Your task to perform on an android device: manage bookmarks in the chrome app Image 0: 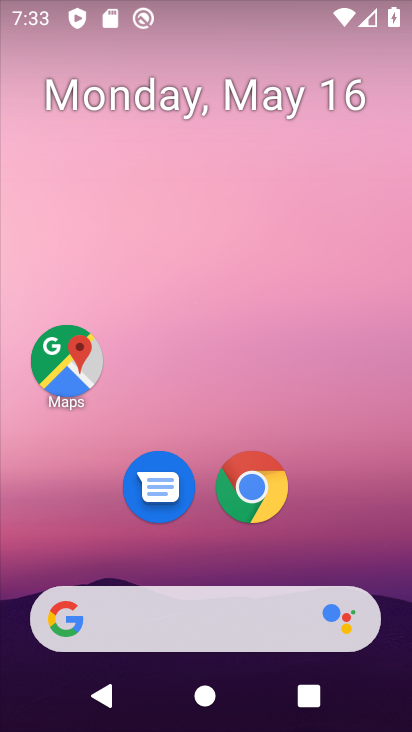
Step 0: click (269, 490)
Your task to perform on an android device: manage bookmarks in the chrome app Image 1: 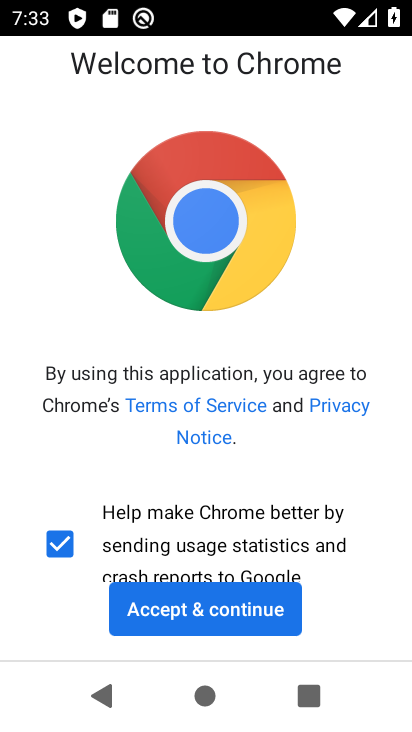
Step 1: click (213, 605)
Your task to perform on an android device: manage bookmarks in the chrome app Image 2: 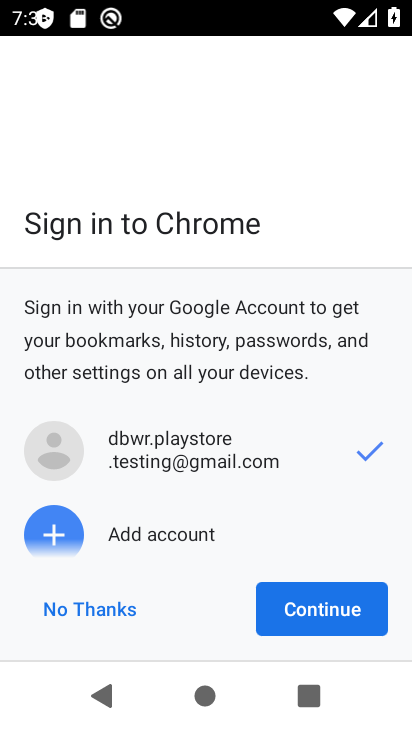
Step 2: click (319, 607)
Your task to perform on an android device: manage bookmarks in the chrome app Image 3: 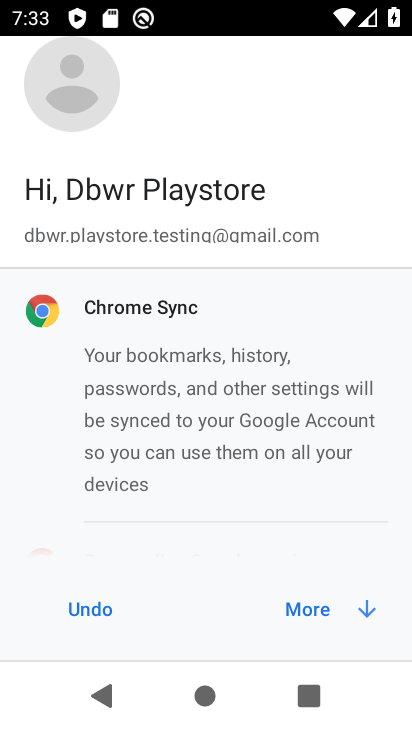
Step 3: click (319, 605)
Your task to perform on an android device: manage bookmarks in the chrome app Image 4: 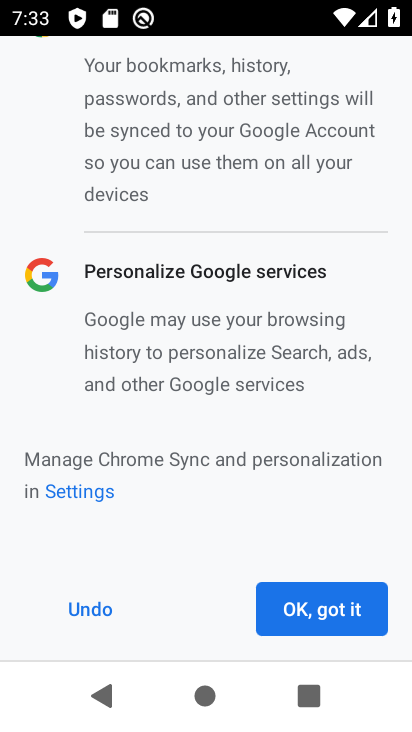
Step 4: click (319, 605)
Your task to perform on an android device: manage bookmarks in the chrome app Image 5: 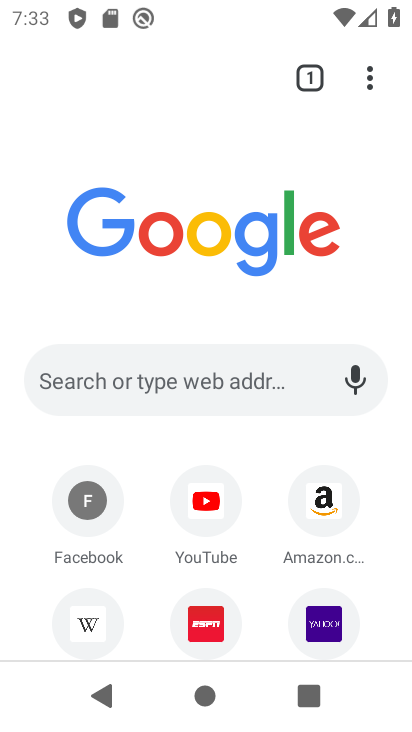
Step 5: click (365, 83)
Your task to perform on an android device: manage bookmarks in the chrome app Image 6: 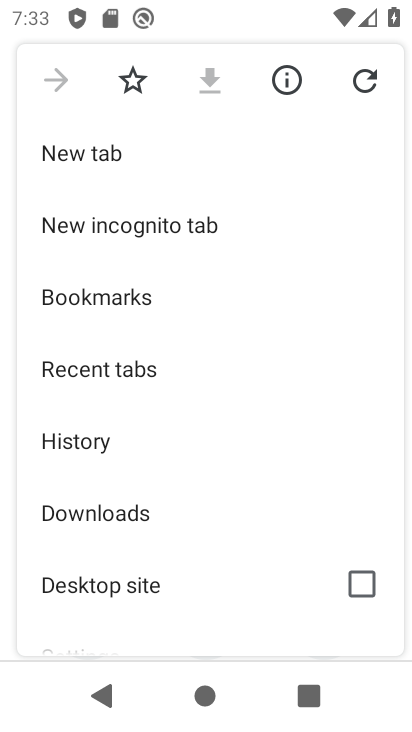
Step 6: click (157, 297)
Your task to perform on an android device: manage bookmarks in the chrome app Image 7: 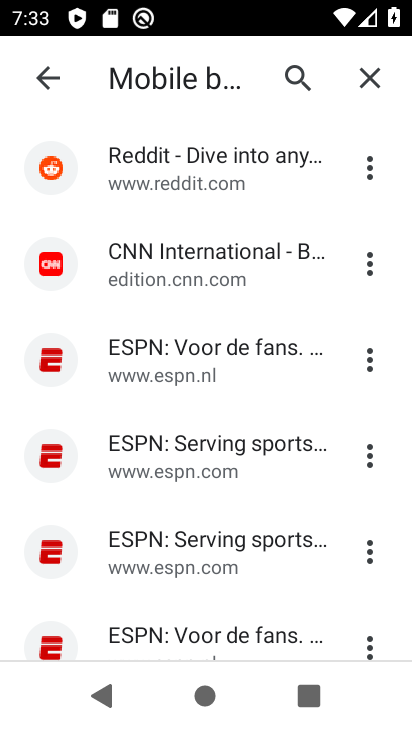
Step 7: click (367, 257)
Your task to perform on an android device: manage bookmarks in the chrome app Image 8: 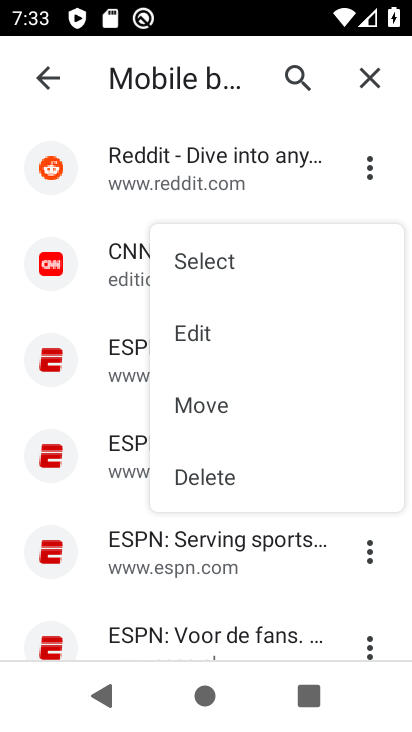
Step 8: click (247, 333)
Your task to perform on an android device: manage bookmarks in the chrome app Image 9: 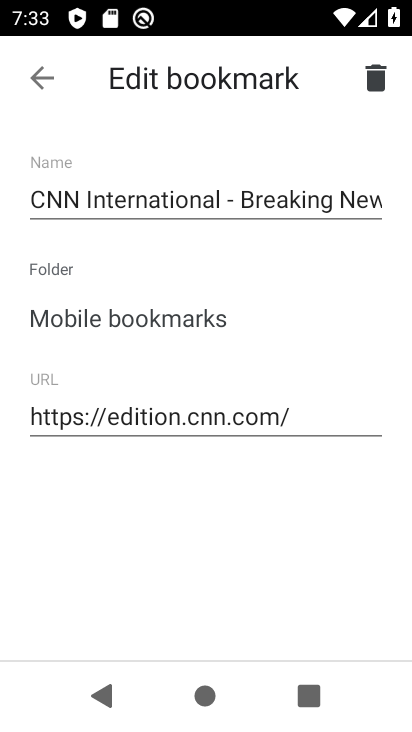
Step 9: click (35, 64)
Your task to perform on an android device: manage bookmarks in the chrome app Image 10: 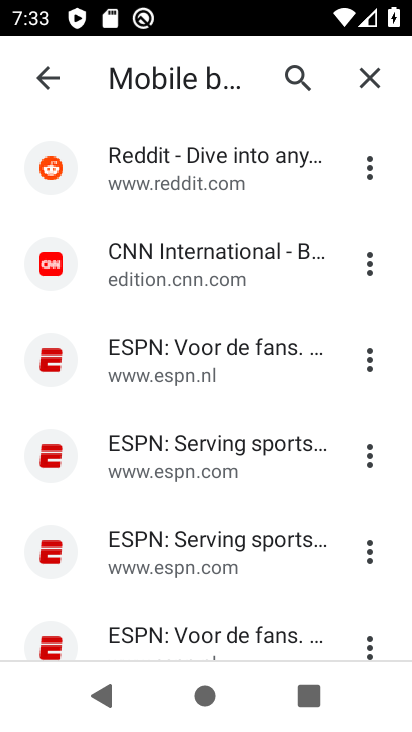
Step 10: click (37, 66)
Your task to perform on an android device: manage bookmarks in the chrome app Image 11: 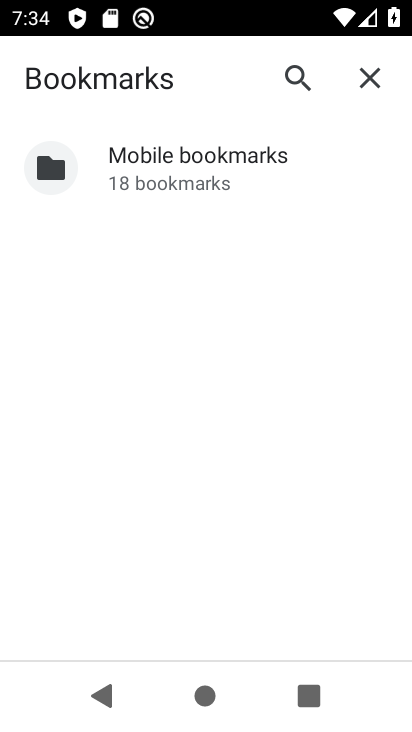
Step 11: click (369, 69)
Your task to perform on an android device: manage bookmarks in the chrome app Image 12: 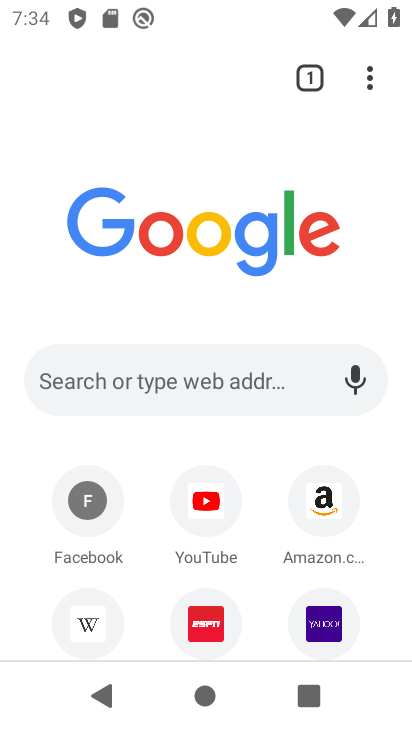
Step 12: task complete